Your task to perform on an android device: Empty the shopping cart on target.com. Search for "rayovac triple a" on target.com, select the first entry, and add it to the cart. Image 0: 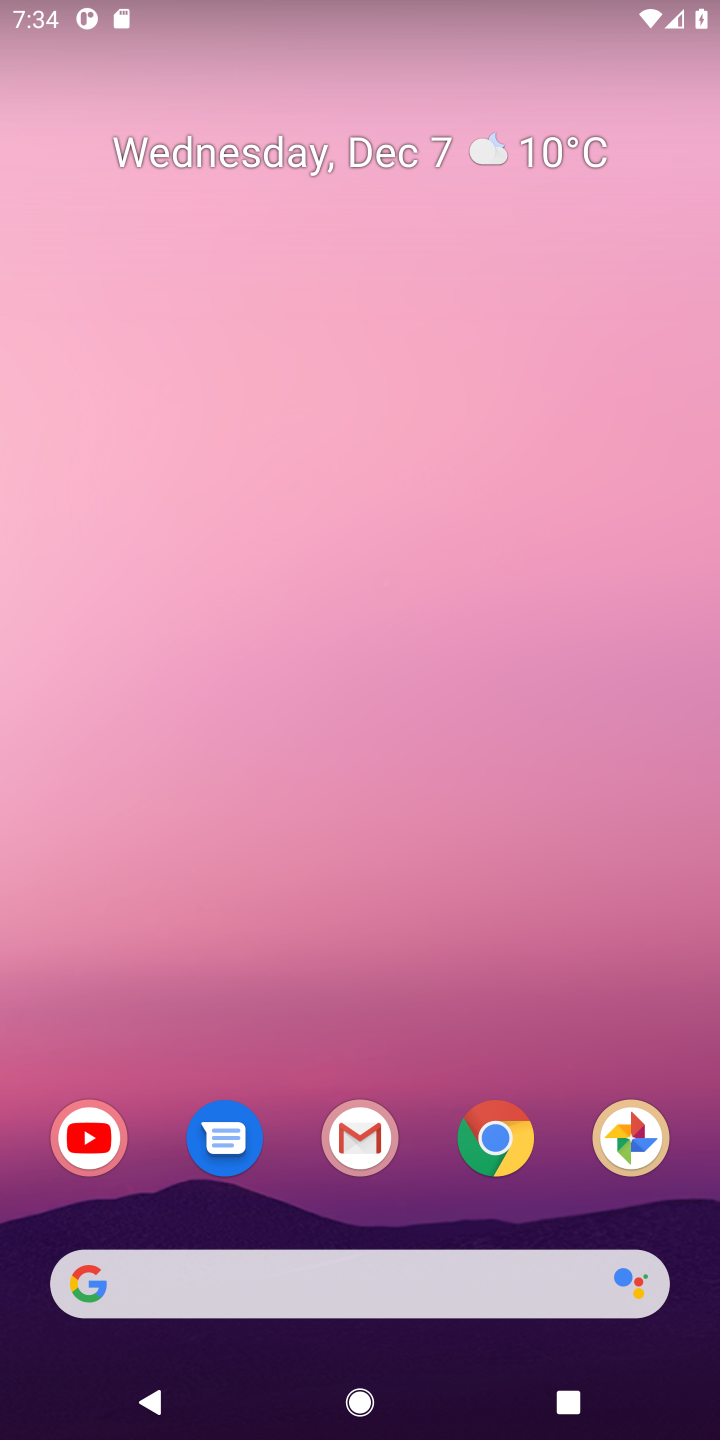
Step 0: press home button
Your task to perform on an android device: Empty the shopping cart on target.com. Search for "rayovac triple a" on target.com, select the first entry, and add it to the cart. Image 1: 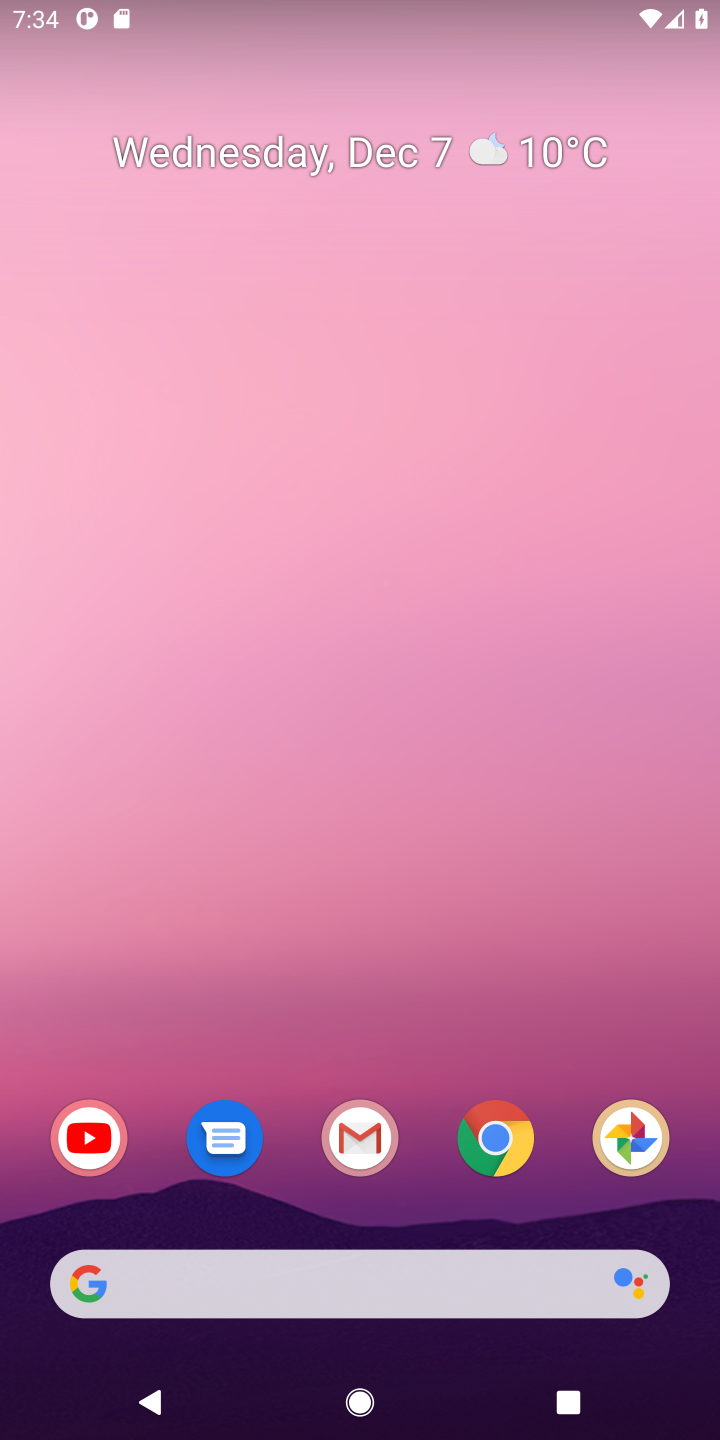
Step 1: click (156, 1282)
Your task to perform on an android device: Empty the shopping cart on target.com. Search for "rayovac triple a" on target.com, select the first entry, and add it to the cart. Image 2: 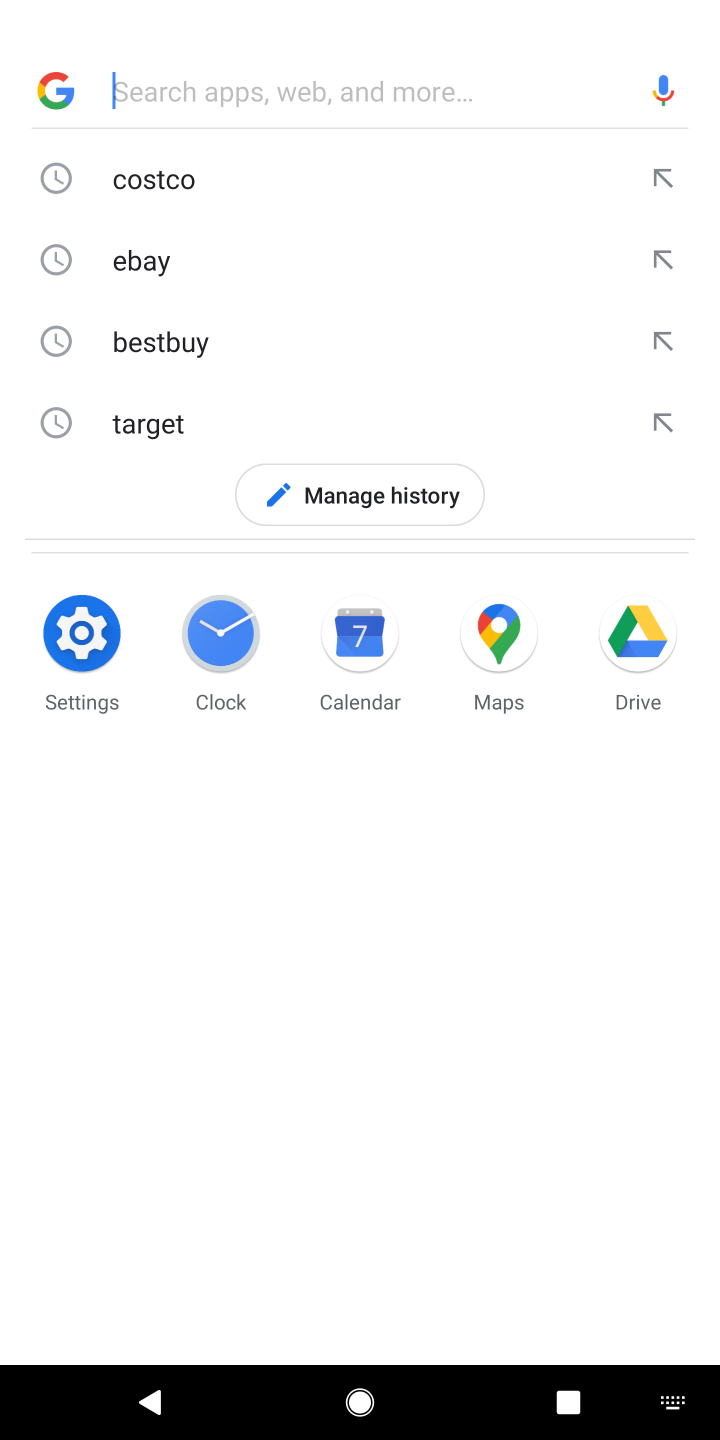
Step 2: type "target.com"
Your task to perform on an android device: Empty the shopping cart on target.com. Search for "rayovac triple a" on target.com, select the first entry, and add it to the cart. Image 3: 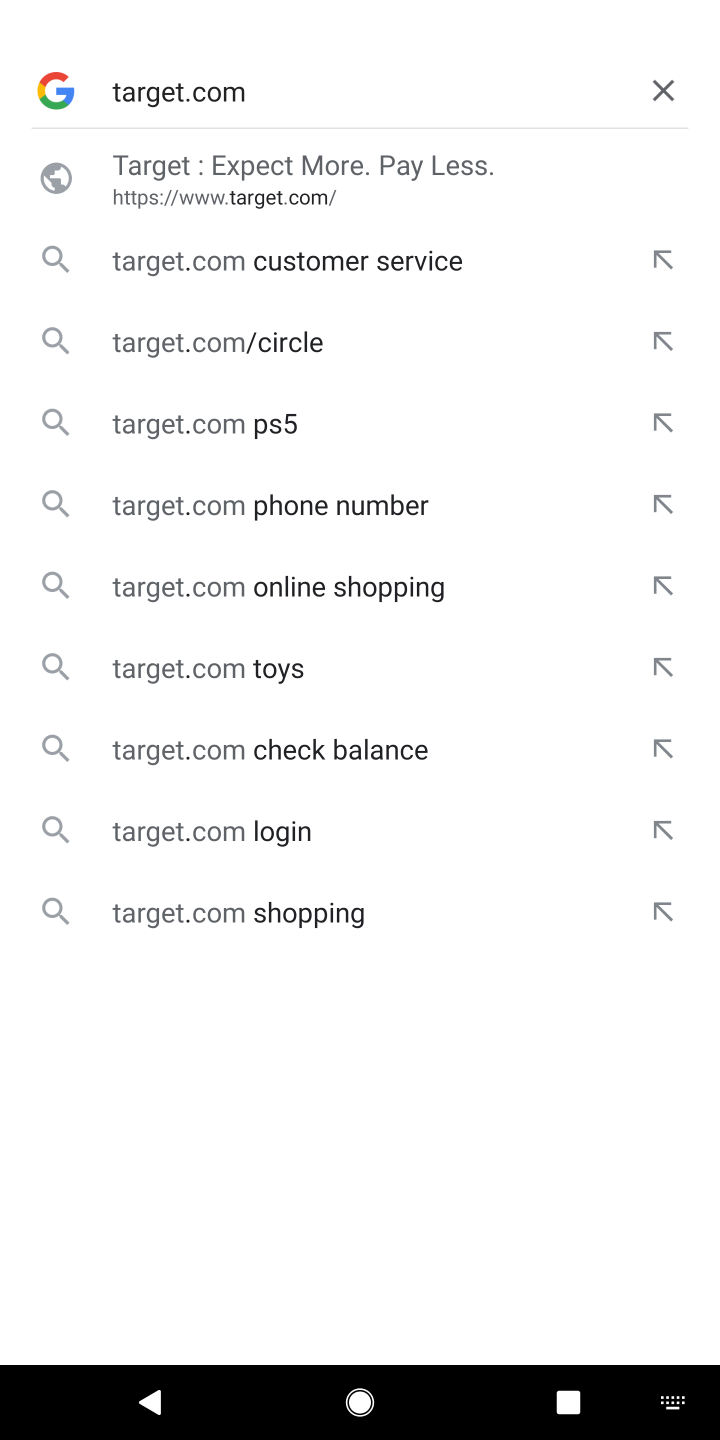
Step 3: press enter
Your task to perform on an android device: Empty the shopping cart on target.com. Search for "rayovac triple a" on target.com, select the first entry, and add it to the cart. Image 4: 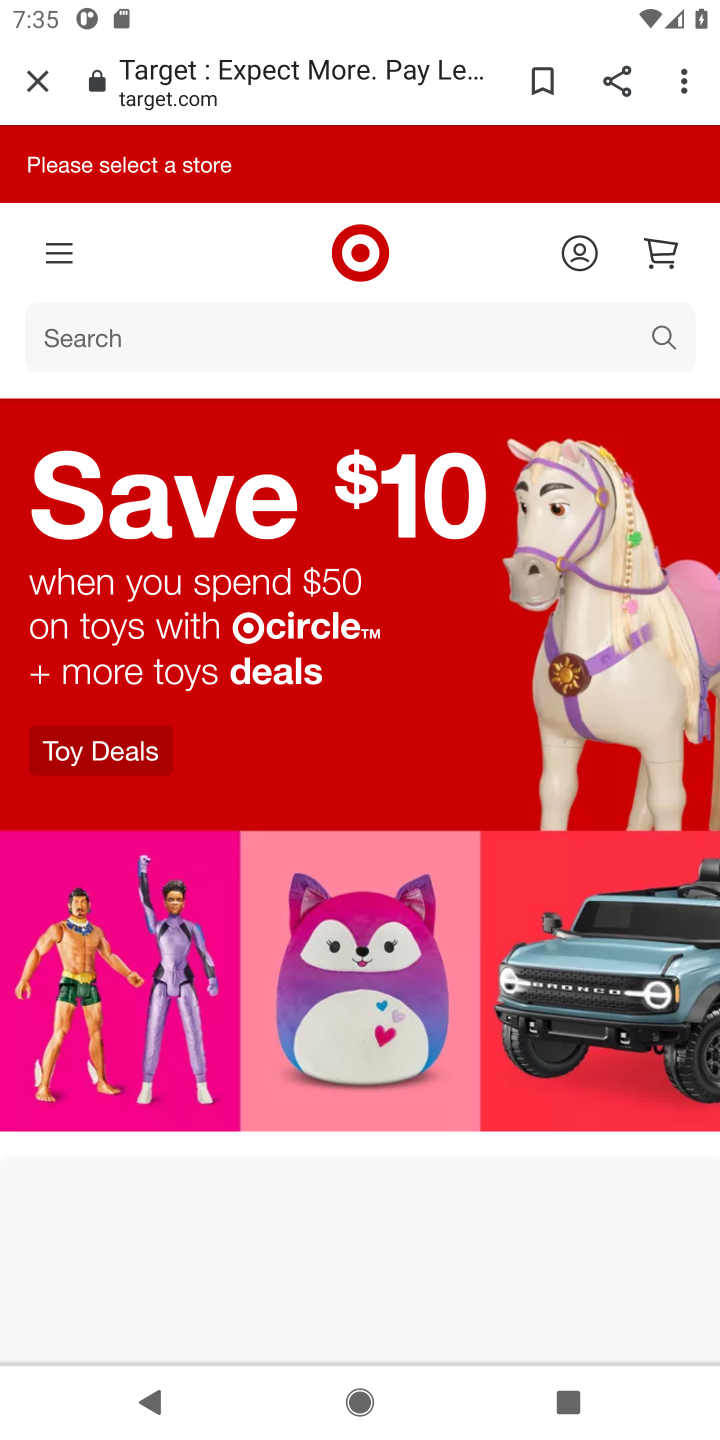
Step 4: click (661, 244)
Your task to perform on an android device: Empty the shopping cart on target.com. Search for "rayovac triple a" on target.com, select the first entry, and add it to the cart. Image 5: 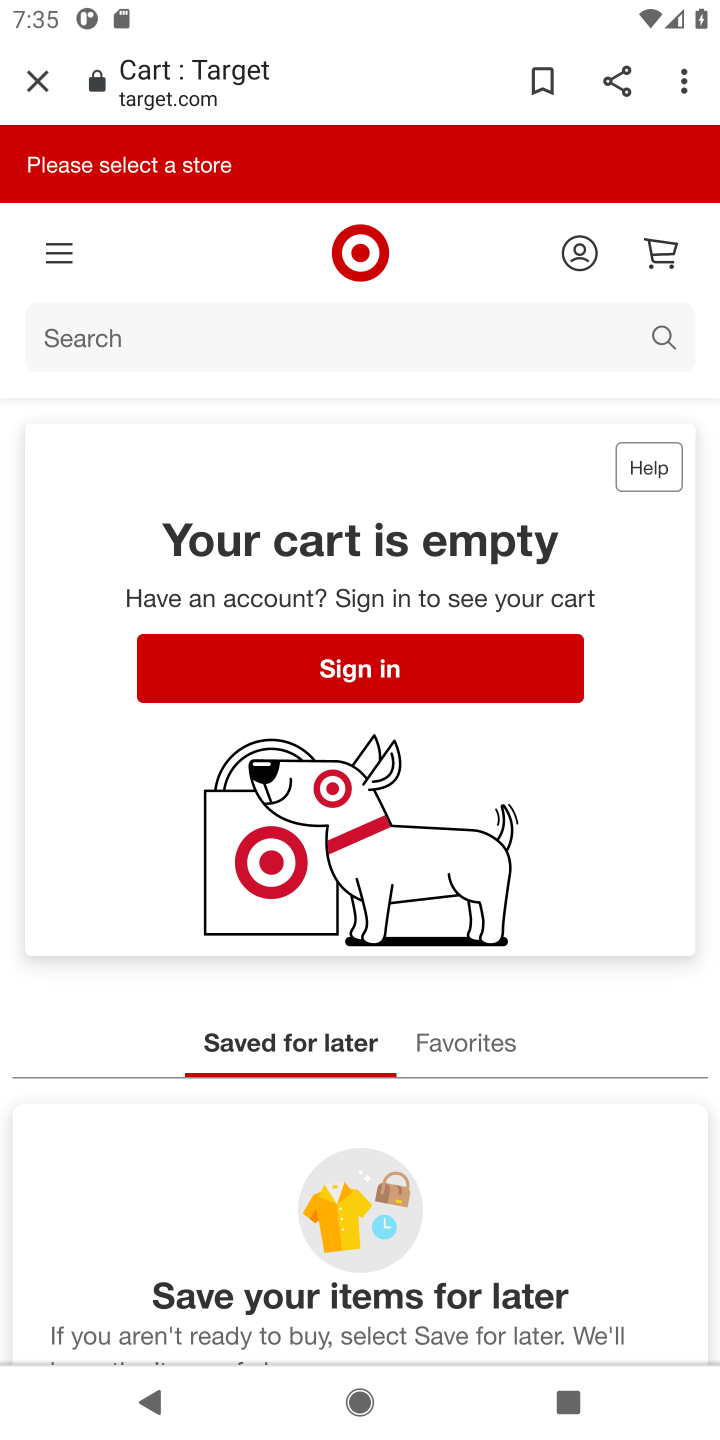
Step 5: click (110, 332)
Your task to perform on an android device: Empty the shopping cart on target.com. Search for "rayovac triple a" on target.com, select the first entry, and add it to the cart. Image 6: 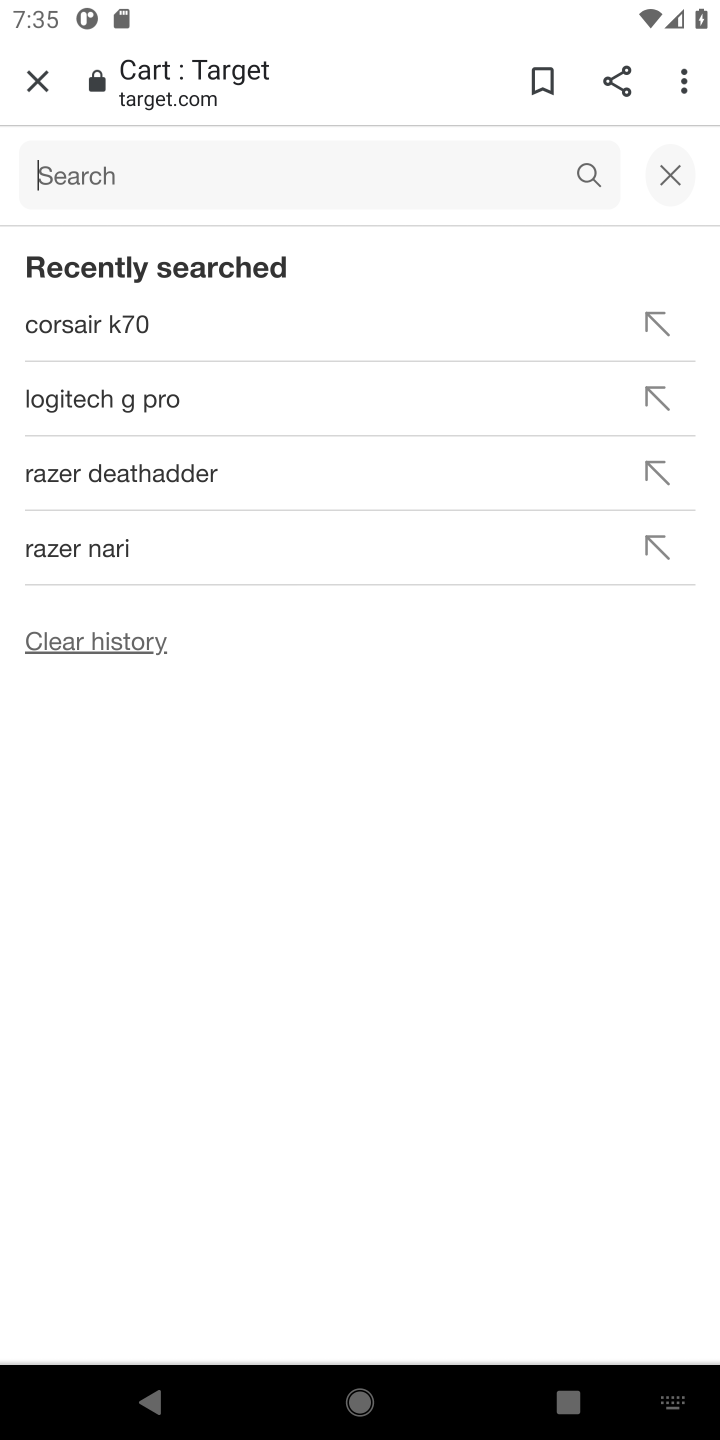
Step 6: type "rayovac triple"
Your task to perform on an android device: Empty the shopping cart on target.com. Search for "rayovac triple a" on target.com, select the first entry, and add it to the cart. Image 7: 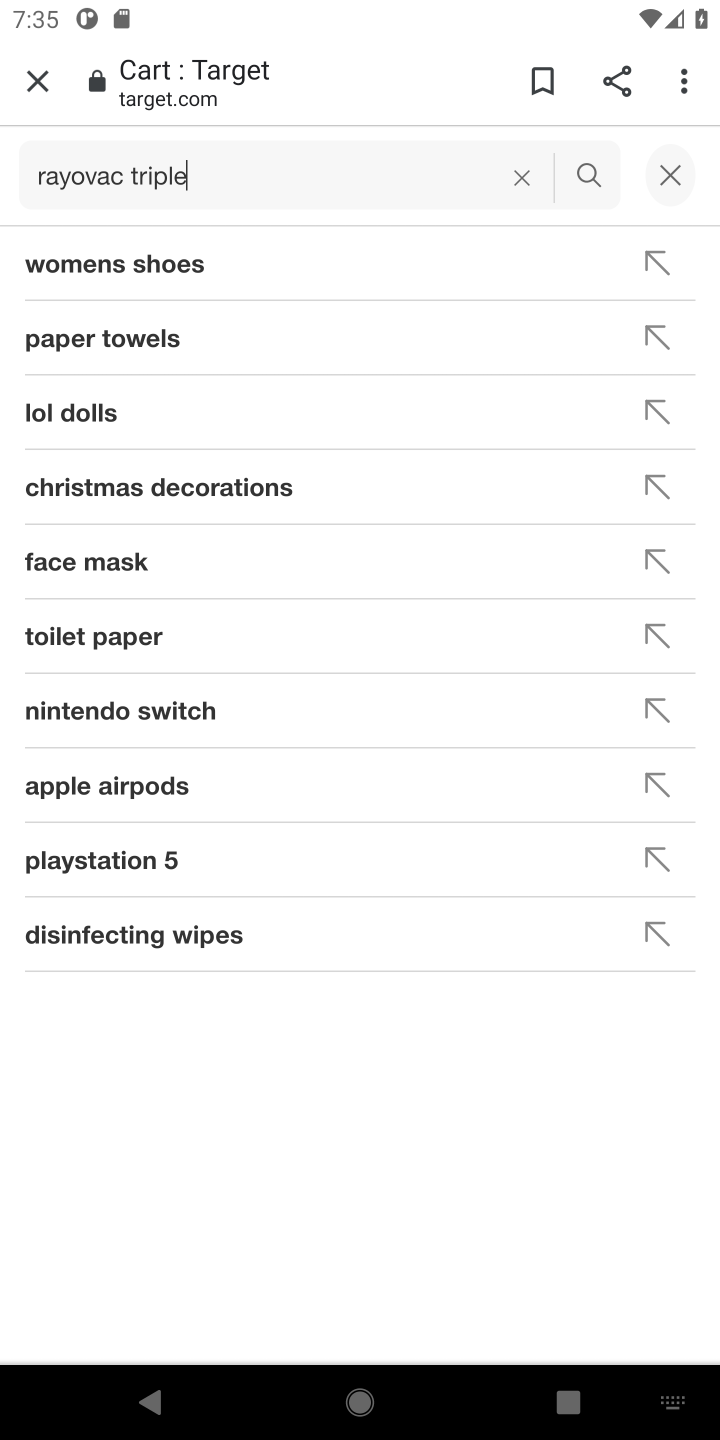
Step 7: press enter
Your task to perform on an android device: Empty the shopping cart on target.com. Search for "rayovac triple a" on target.com, select the first entry, and add it to the cart. Image 8: 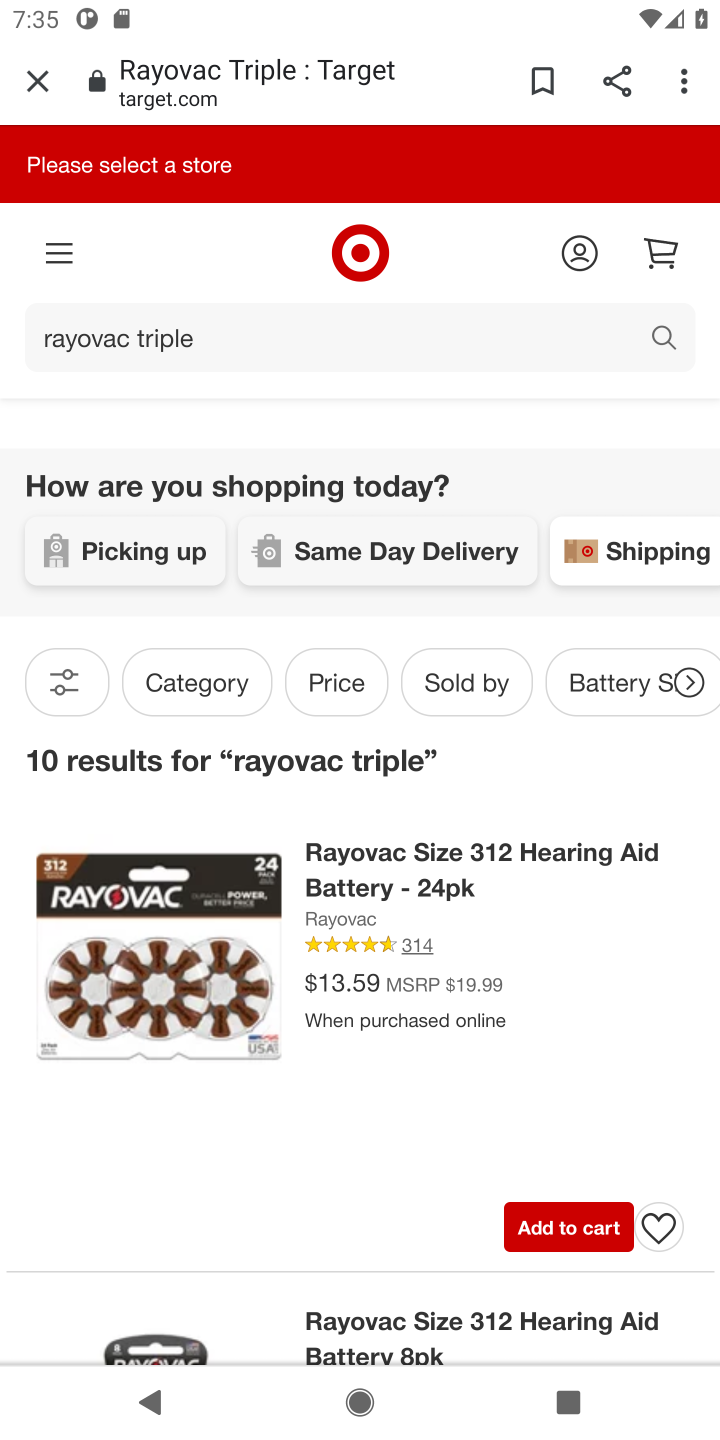
Step 8: drag from (317, 1161) to (379, 808)
Your task to perform on an android device: Empty the shopping cart on target.com. Search for "rayovac triple a" on target.com, select the first entry, and add it to the cart. Image 9: 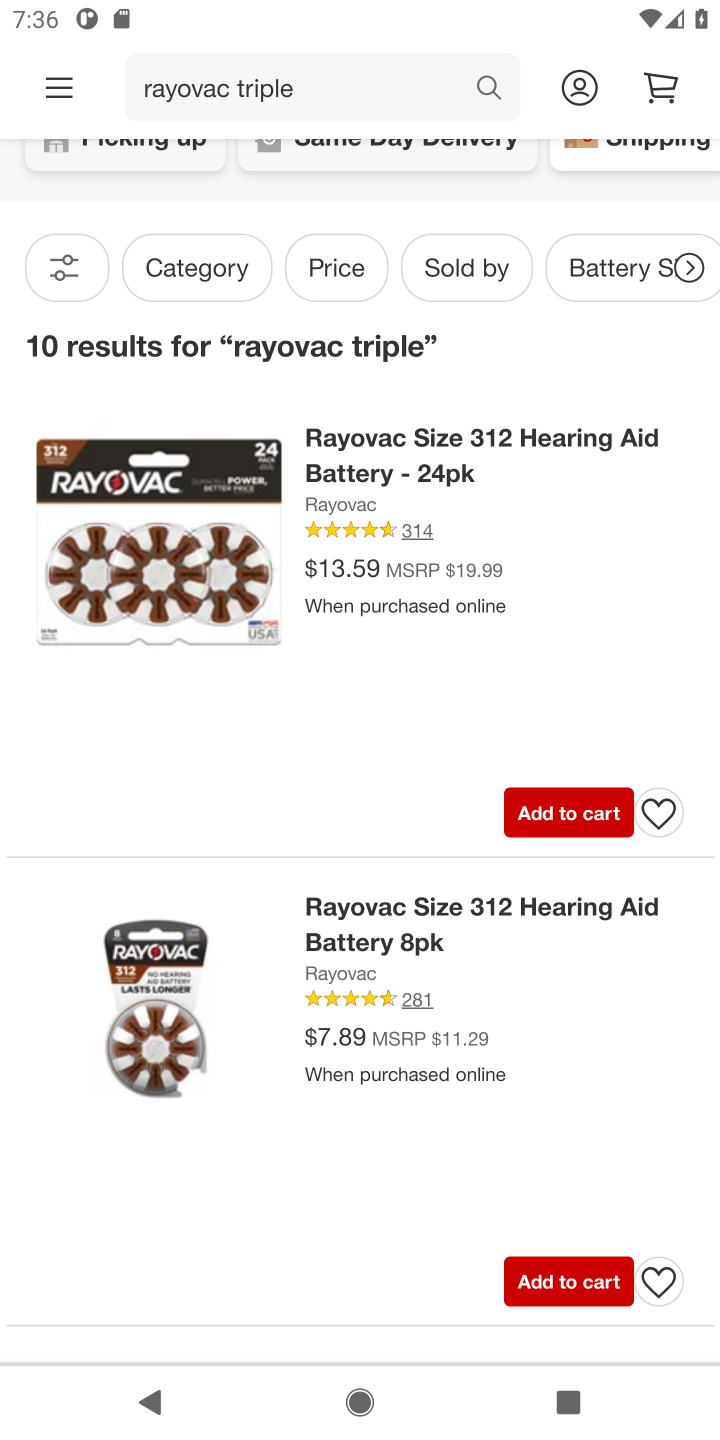
Step 9: drag from (329, 1182) to (374, 669)
Your task to perform on an android device: Empty the shopping cart on target.com. Search for "rayovac triple a" on target.com, select the first entry, and add it to the cart. Image 10: 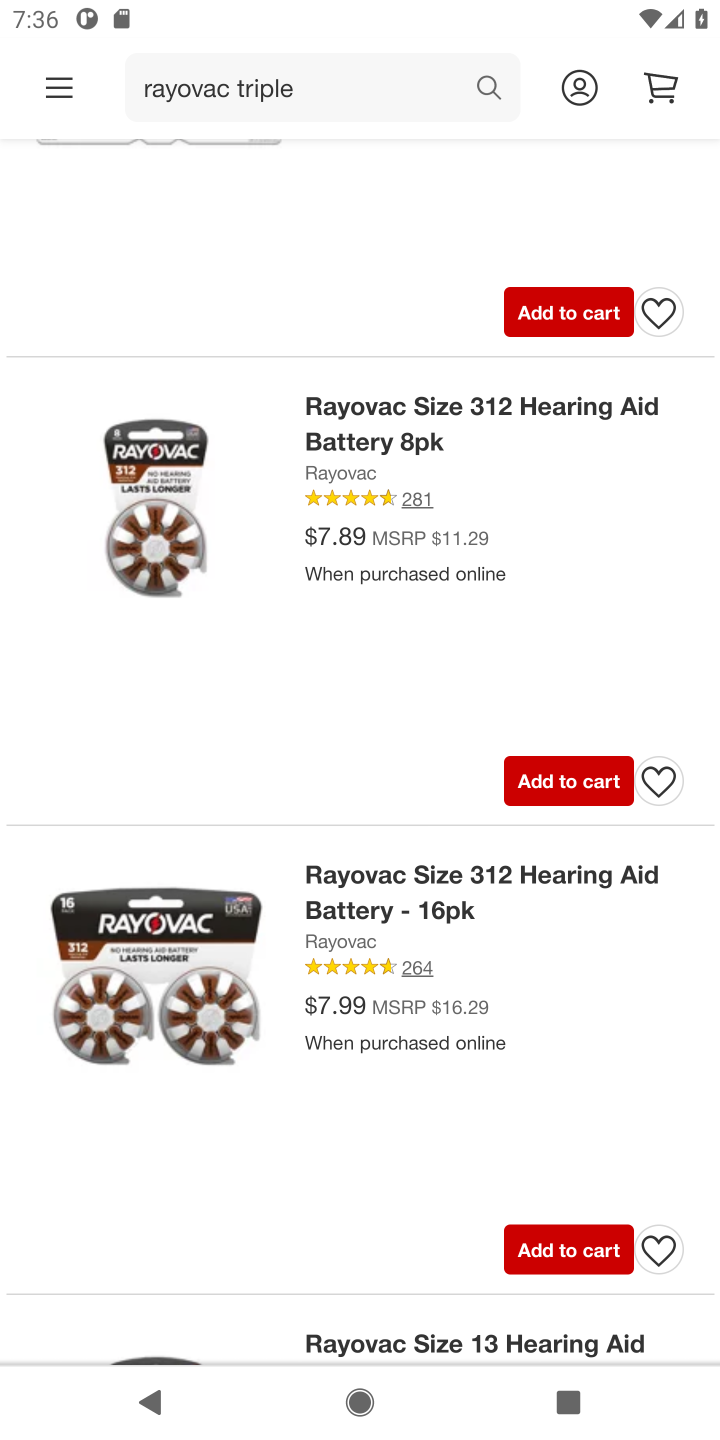
Step 10: drag from (394, 482) to (402, 1019)
Your task to perform on an android device: Empty the shopping cart on target.com. Search for "rayovac triple a" on target.com, select the first entry, and add it to the cart. Image 11: 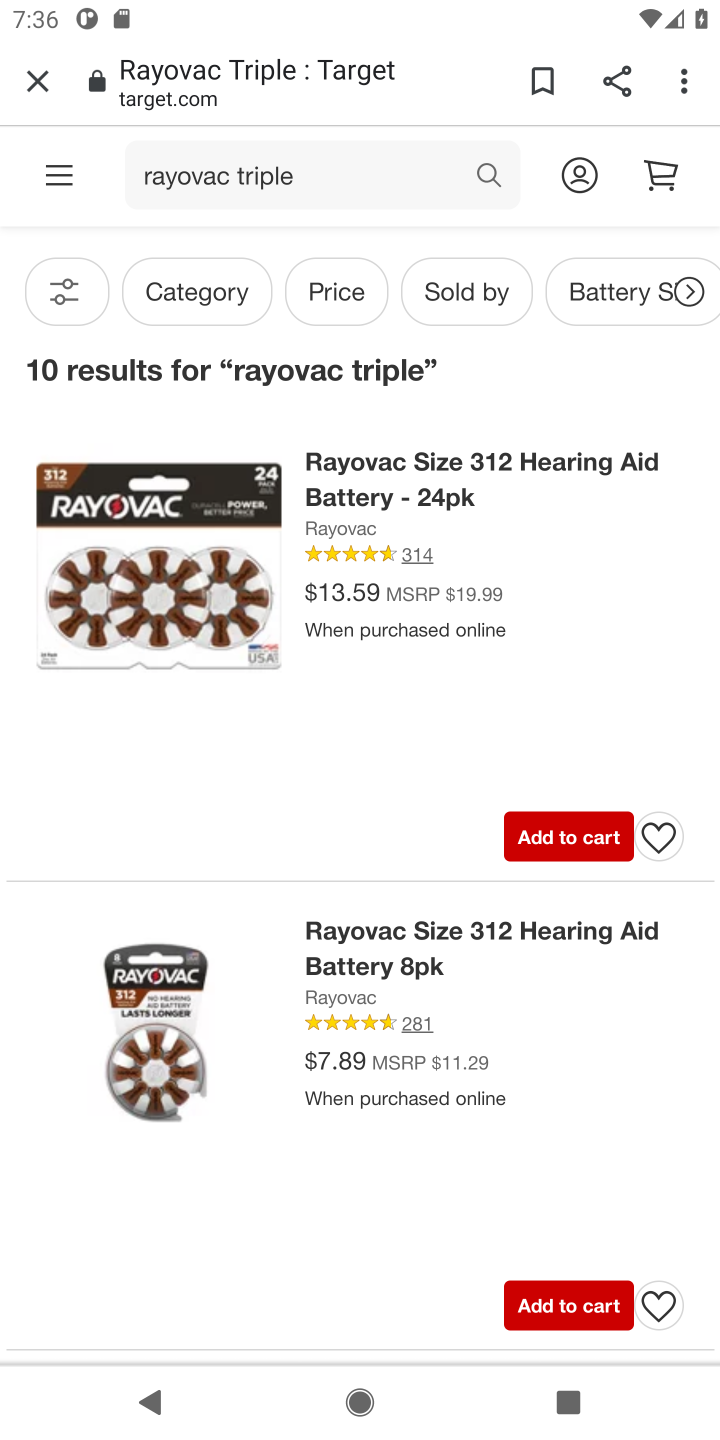
Step 11: click (570, 841)
Your task to perform on an android device: Empty the shopping cart on target.com. Search for "rayovac triple a" on target.com, select the first entry, and add it to the cart. Image 12: 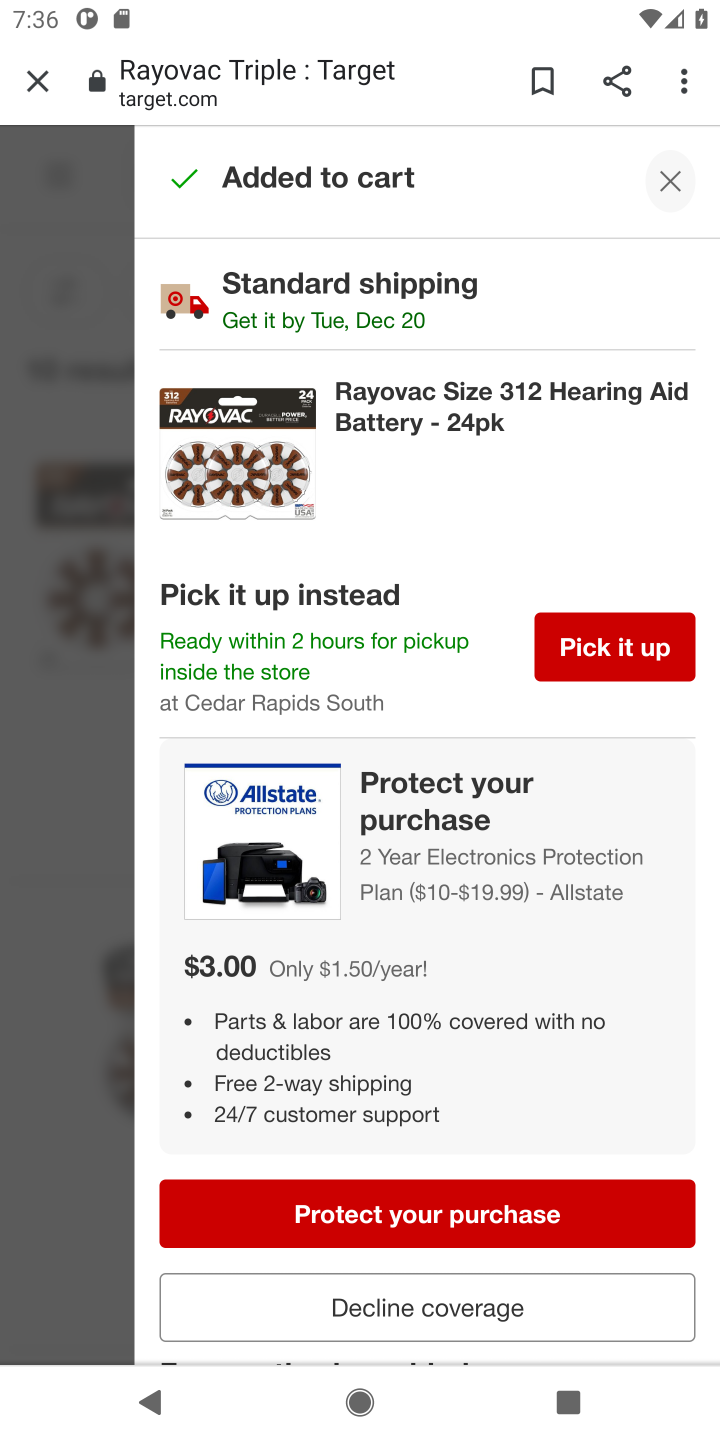
Step 12: task complete